Your task to perform on an android device: Add alienware aurora to the cart on ebay.com, then select checkout. Image 0: 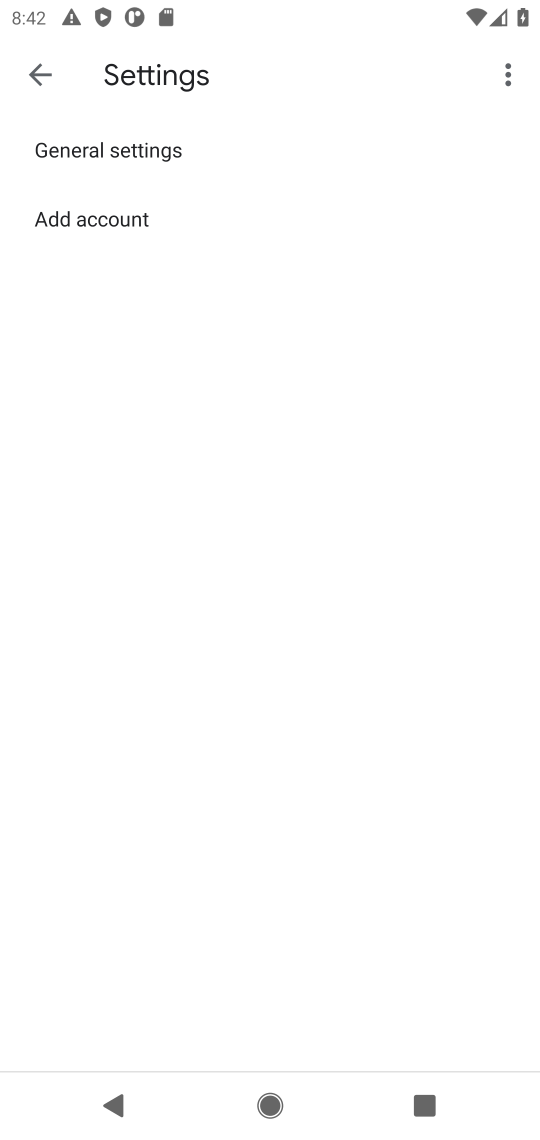
Step 0: press home button
Your task to perform on an android device: Add alienware aurora to the cart on ebay.com, then select checkout. Image 1: 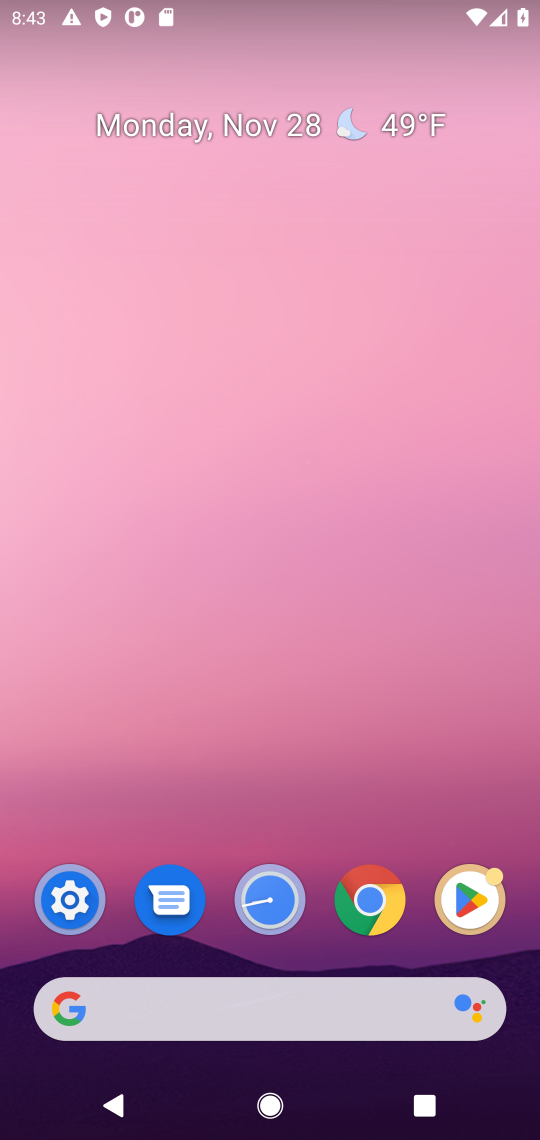
Step 1: click (304, 1002)
Your task to perform on an android device: Add alienware aurora to the cart on ebay.com, then select checkout. Image 2: 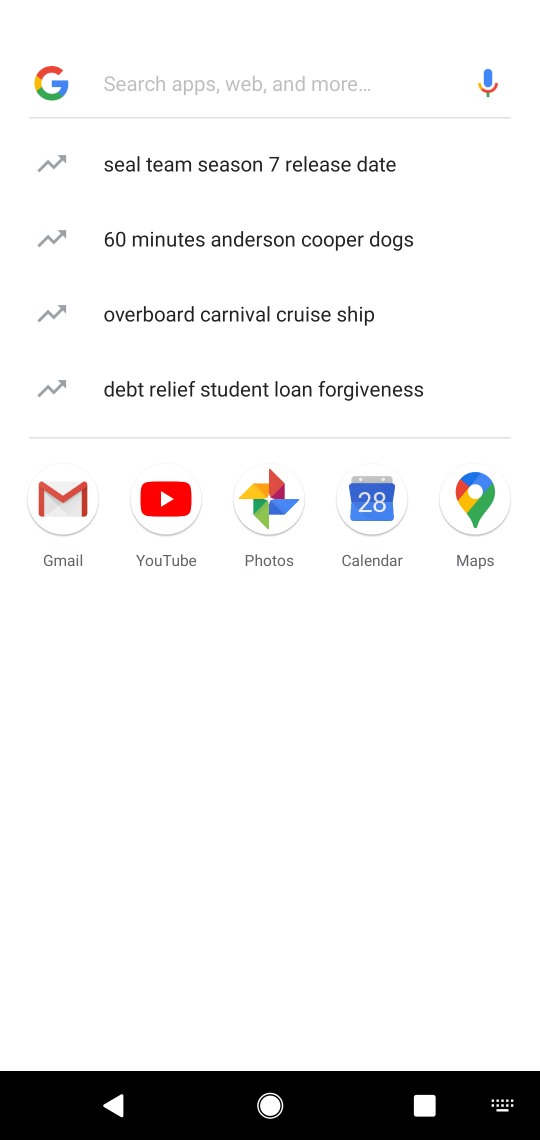
Step 2: type "ebay"
Your task to perform on an android device: Add alienware aurora to the cart on ebay.com, then select checkout. Image 3: 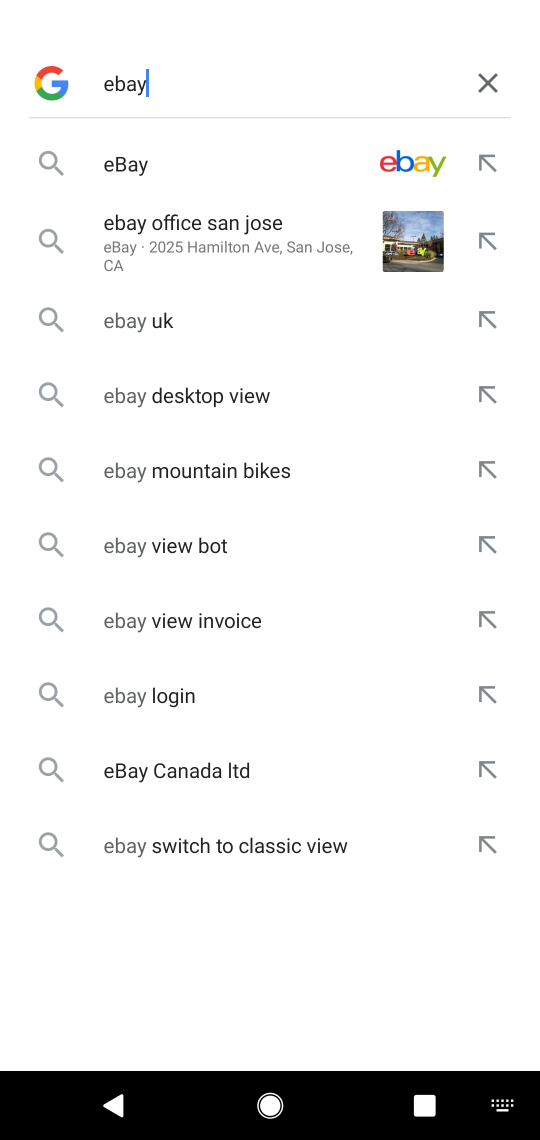
Step 3: click (137, 141)
Your task to perform on an android device: Add alienware aurora to the cart on ebay.com, then select checkout. Image 4: 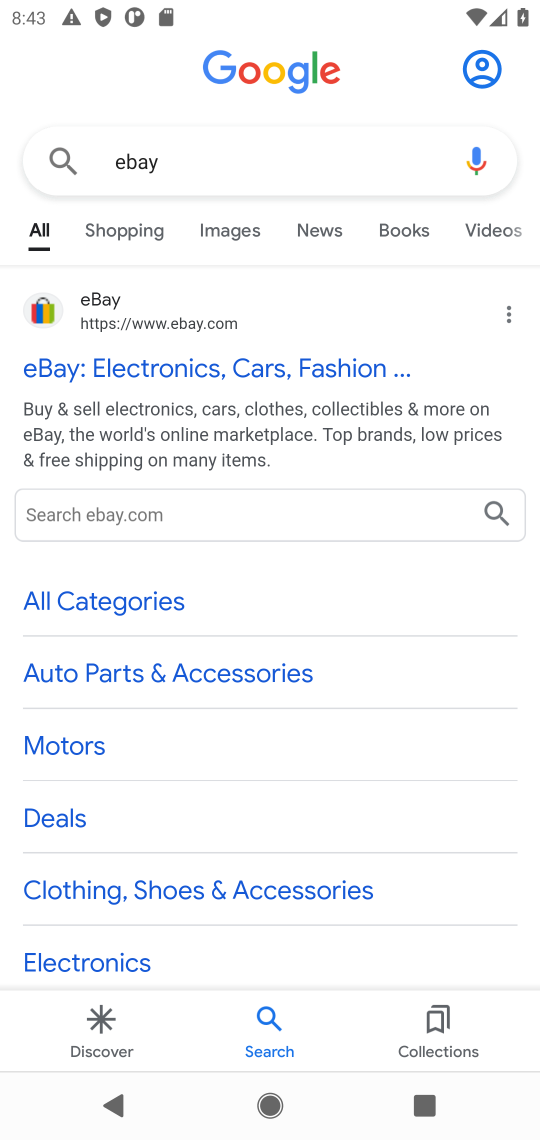
Step 4: click (250, 363)
Your task to perform on an android device: Add alienware aurora to the cart on ebay.com, then select checkout. Image 5: 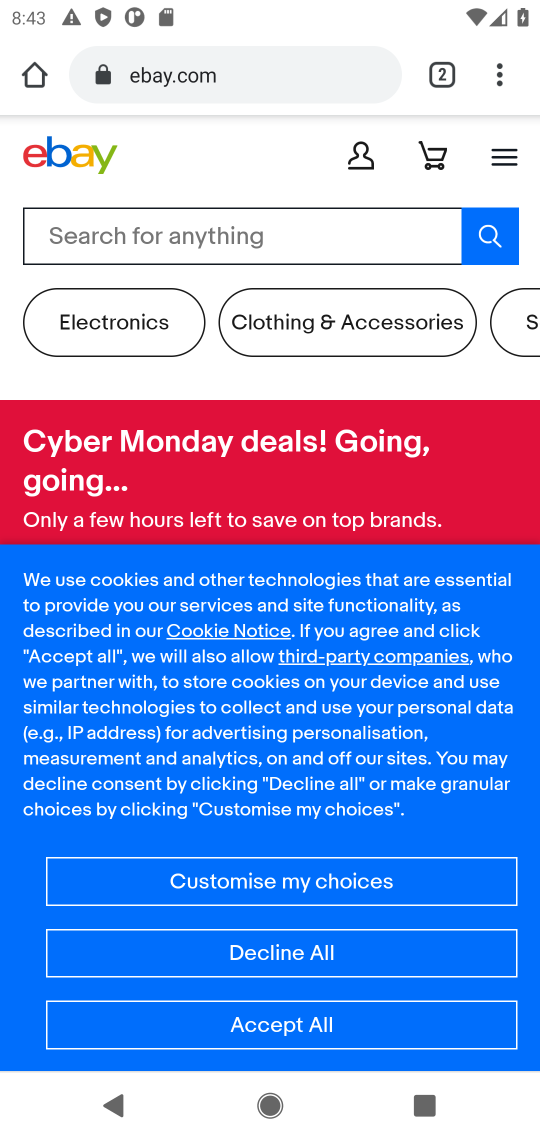
Step 5: click (270, 250)
Your task to perform on an android device: Add alienware aurora to the cart on ebay.com, then select checkout. Image 6: 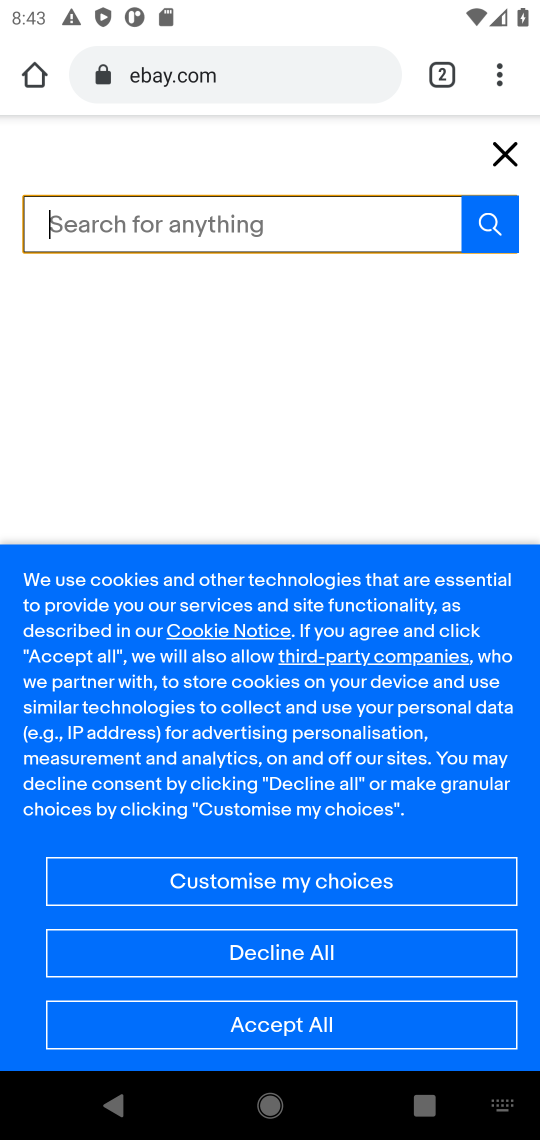
Step 6: type "alienware"
Your task to perform on an android device: Add alienware aurora to the cart on ebay.com, then select checkout. Image 7: 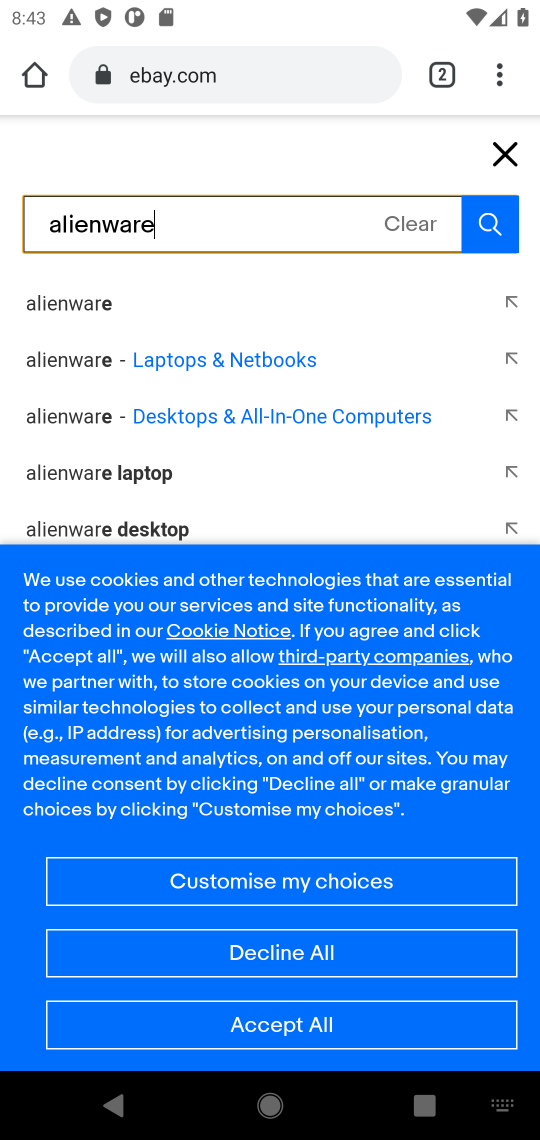
Step 7: click (500, 241)
Your task to perform on an android device: Add alienware aurora to the cart on ebay.com, then select checkout. Image 8: 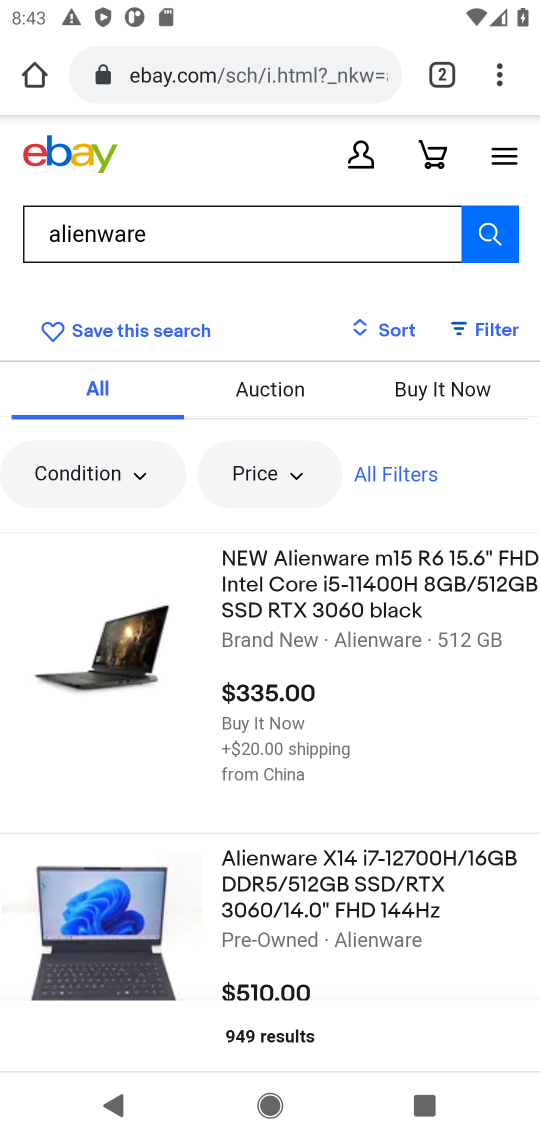
Step 8: click (335, 601)
Your task to perform on an android device: Add alienware aurora to the cart on ebay.com, then select checkout. Image 9: 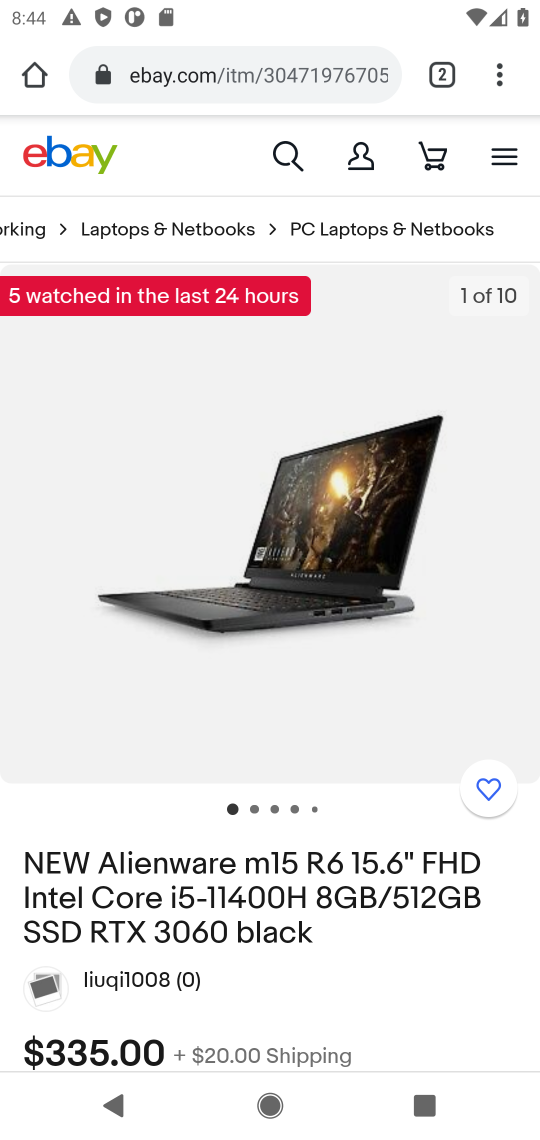
Step 9: task complete